Your task to perform on an android device: Open a new Chrome private tab Image 0: 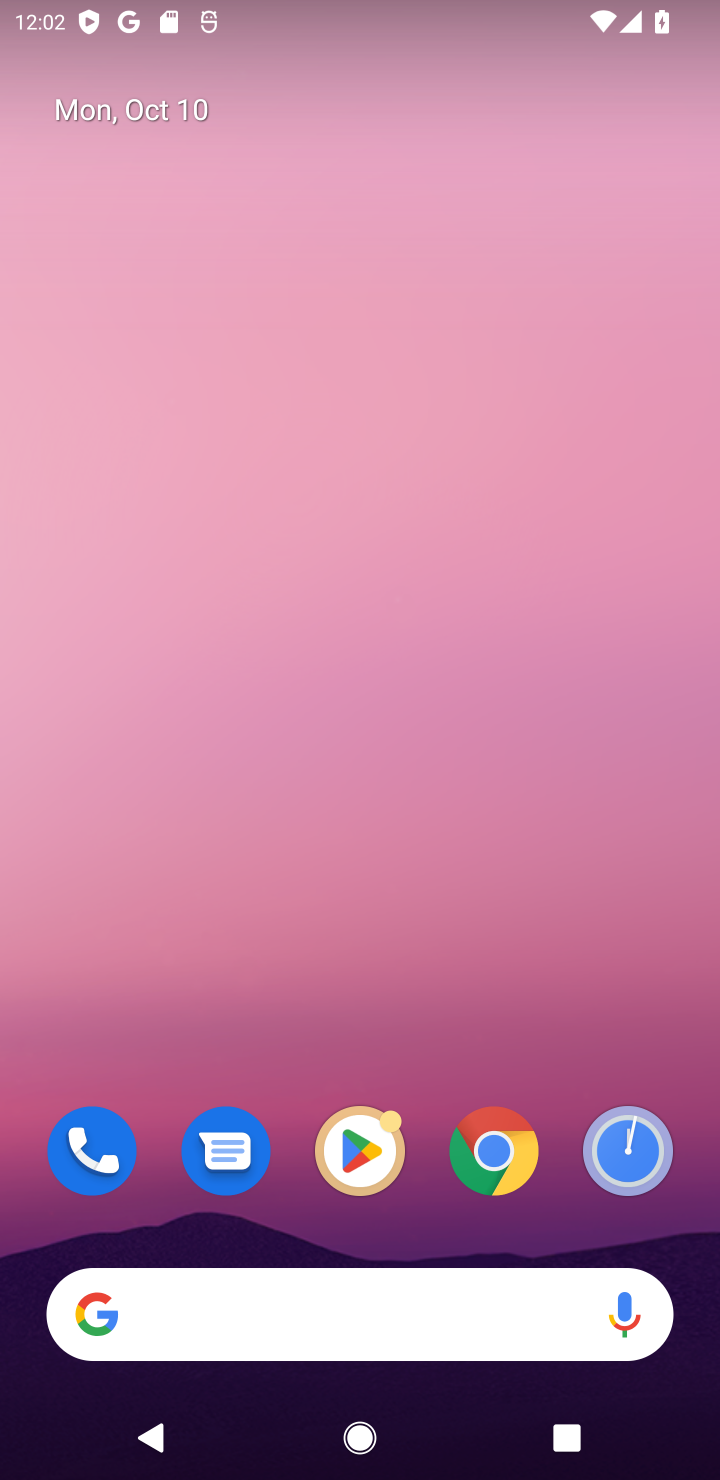
Step 0: click (502, 1151)
Your task to perform on an android device: Open a new Chrome private tab Image 1: 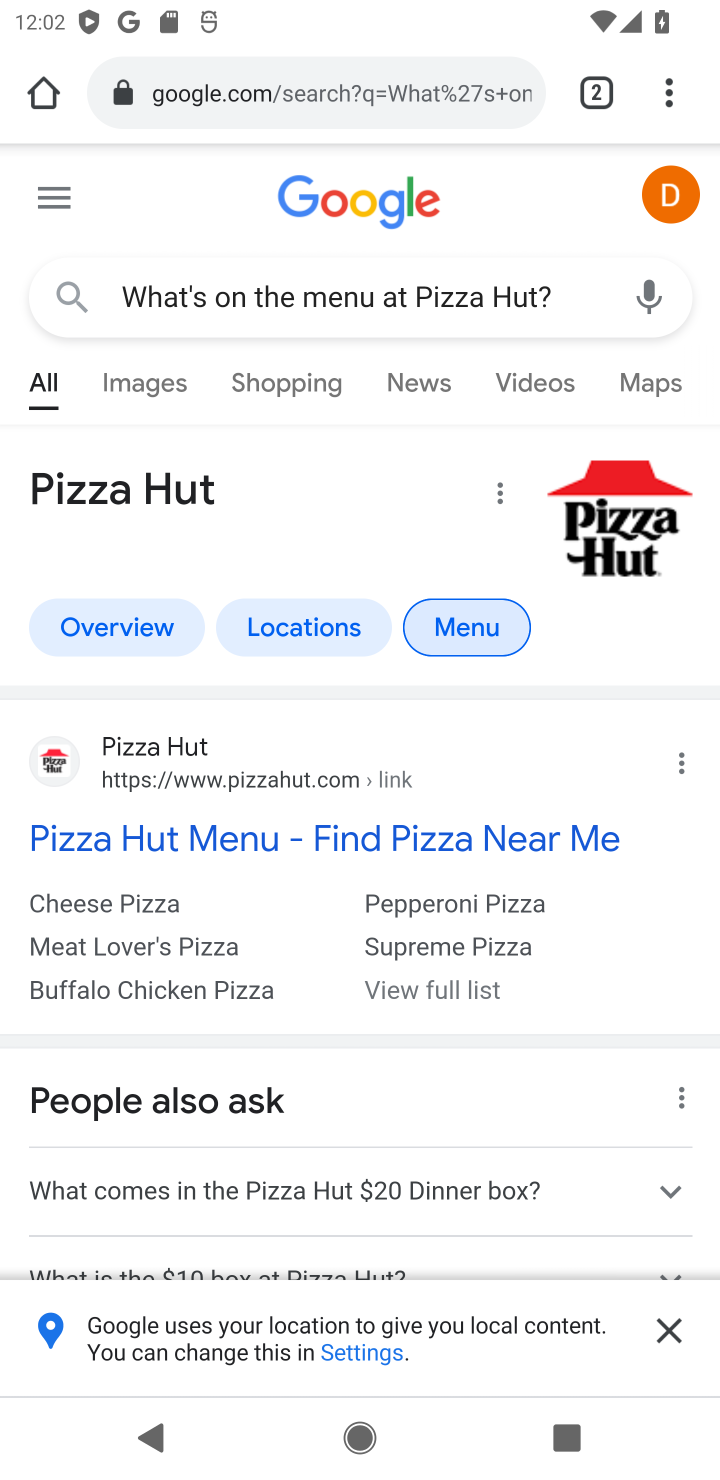
Step 1: click (660, 94)
Your task to perform on an android device: Open a new Chrome private tab Image 2: 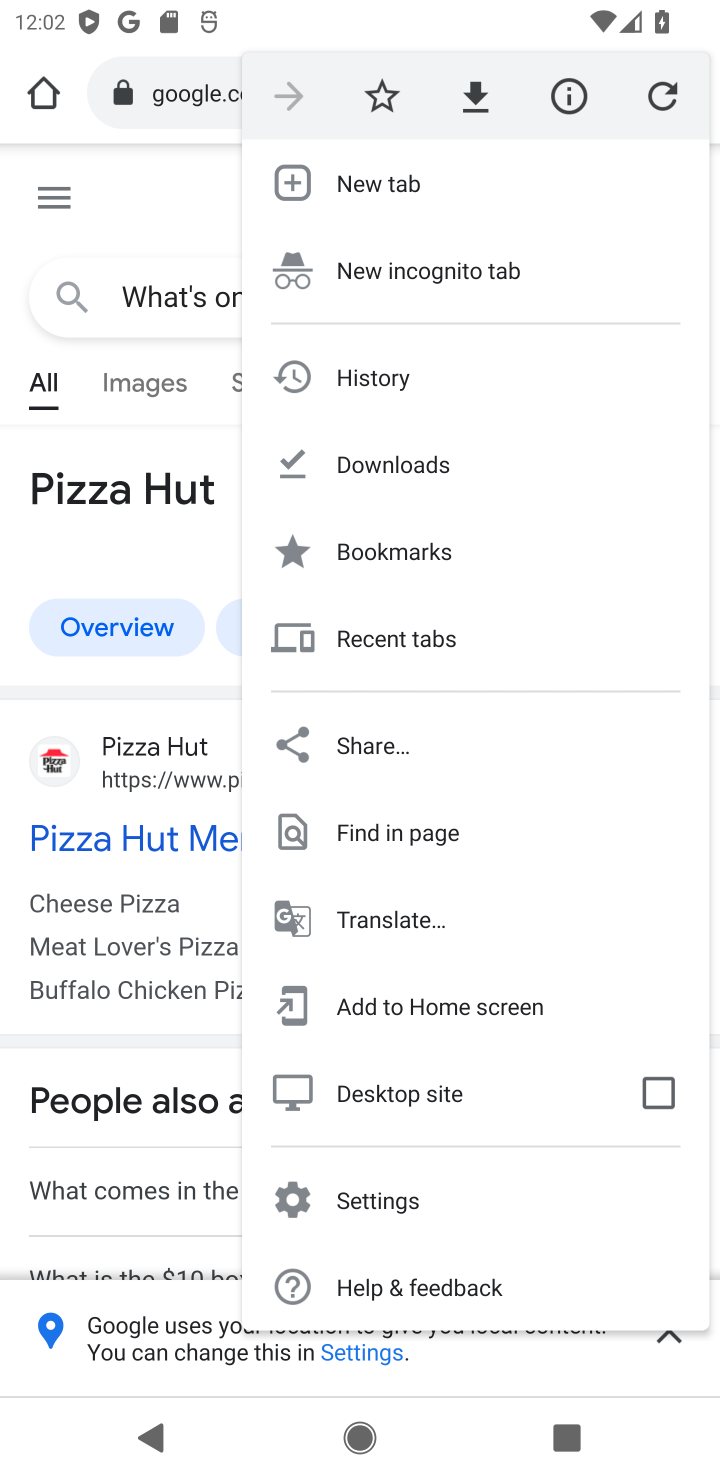
Step 2: click (377, 175)
Your task to perform on an android device: Open a new Chrome private tab Image 3: 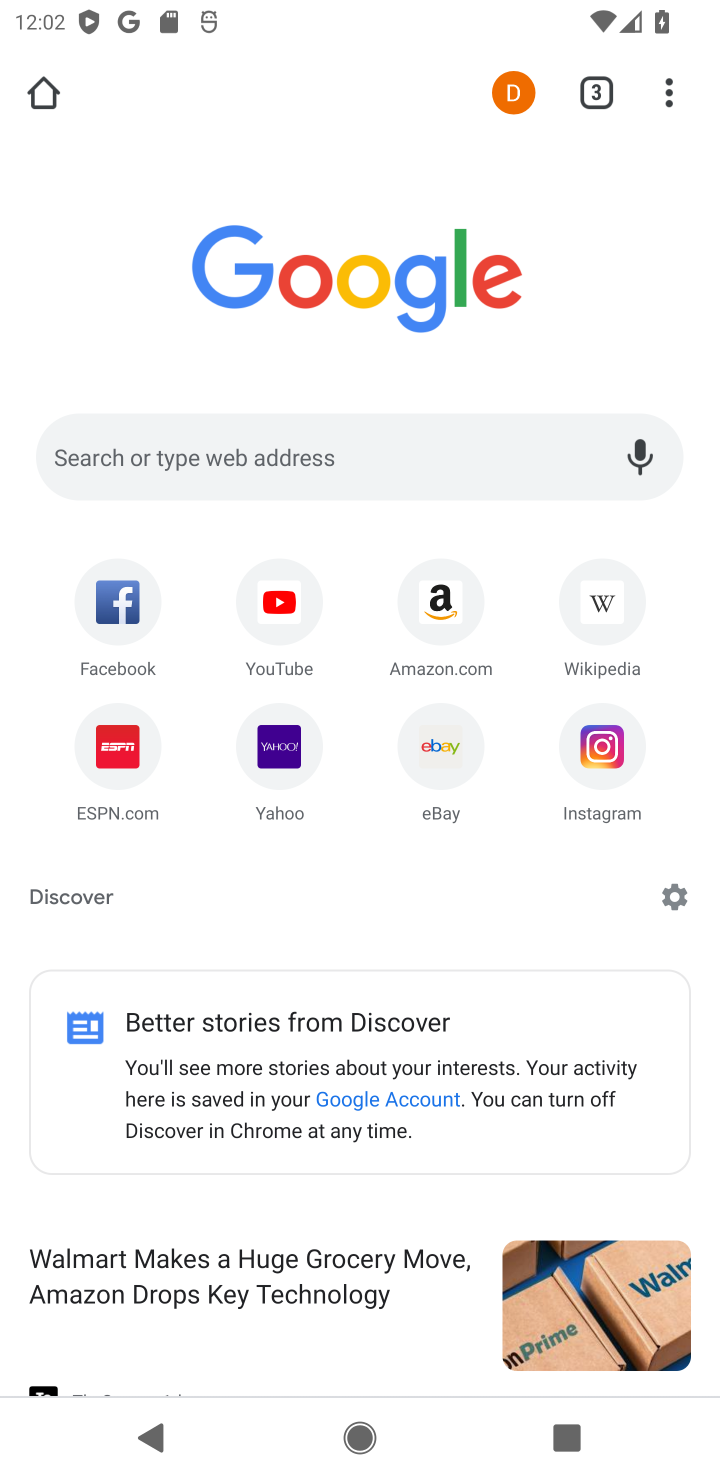
Step 3: task complete